Your task to perform on an android device: turn pop-ups off in chrome Image 0: 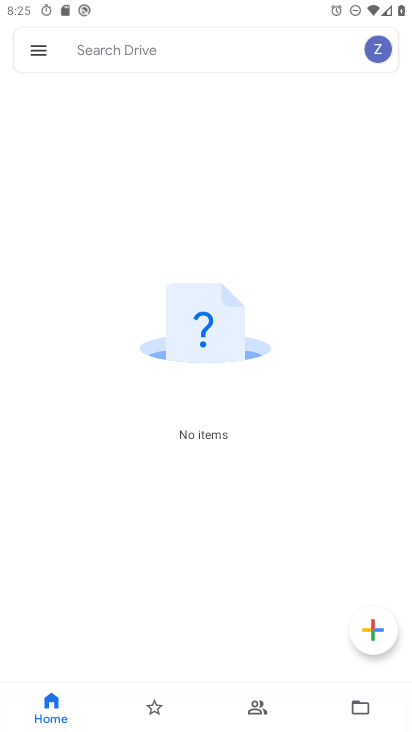
Step 0: press home button
Your task to perform on an android device: turn pop-ups off in chrome Image 1: 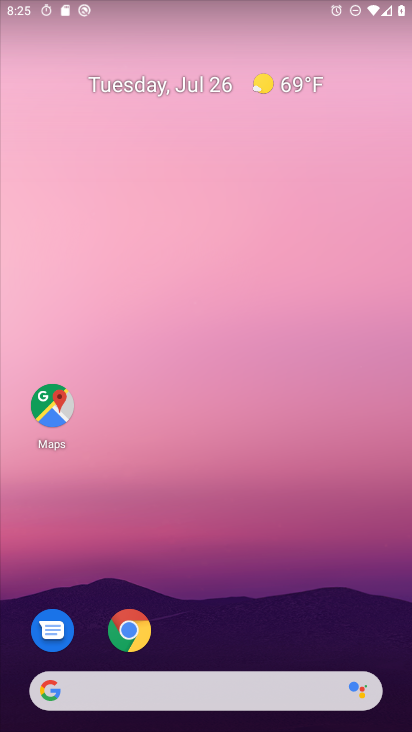
Step 1: drag from (258, 652) to (274, 218)
Your task to perform on an android device: turn pop-ups off in chrome Image 2: 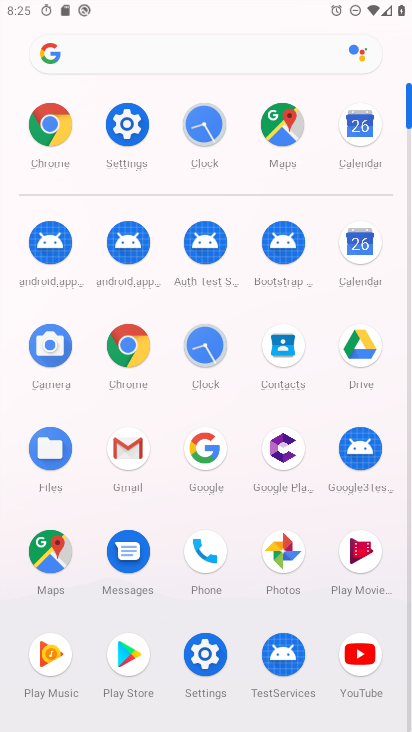
Step 2: click (147, 339)
Your task to perform on an android device: turn pop-ups off in chrome Image 3: 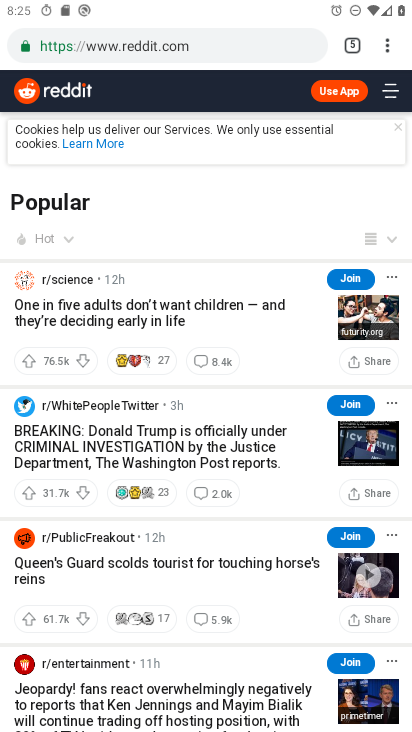
Step 3: click (385, 45)
Your task to perform on an android device: turn pop-ups off in chrome Image 4: 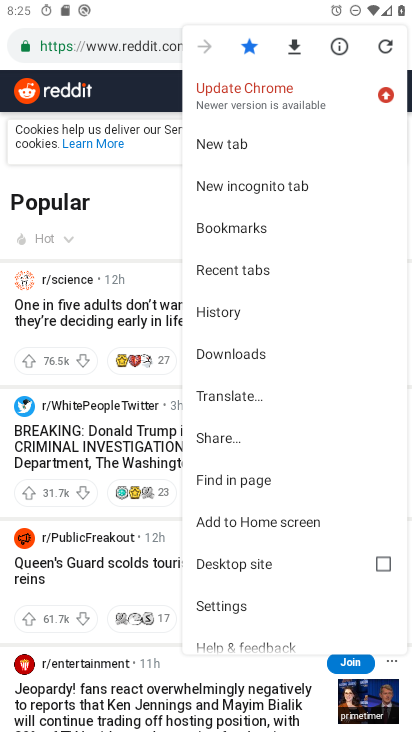
Step 4: click (232, 612)
Your task to perform on an android device: turn pop-ups off in chrome Image 5: 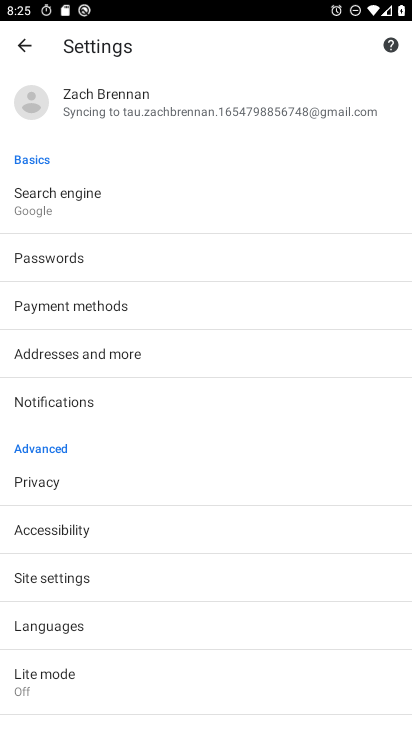
Step 5: click (92, 582)
Your task to perform on an android device: turn pop-ups off in chrome Image 6: 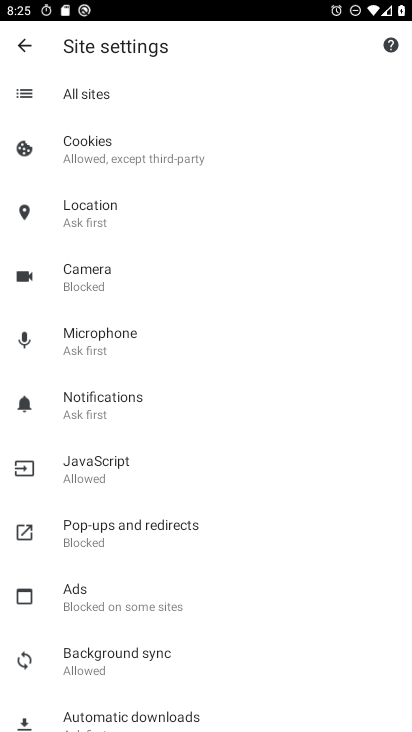
Step 6: click (164, 544)
Your task to perform on an android device: turn pop-ups off in chrome Image 7: 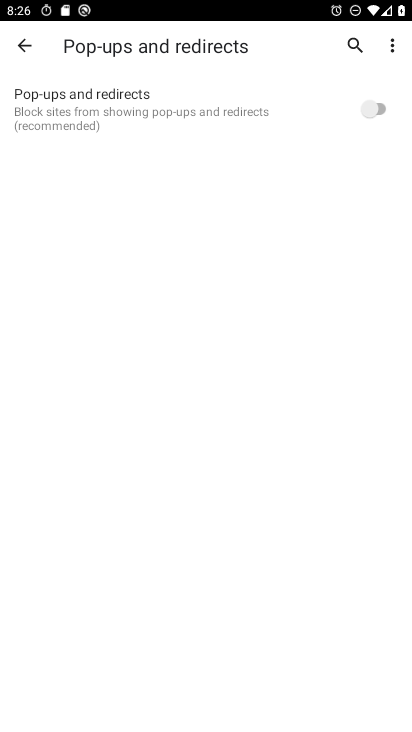
Step 7: task complete